Your task to perform on an android device: What's the weather going to be tomorrow? Image 0: 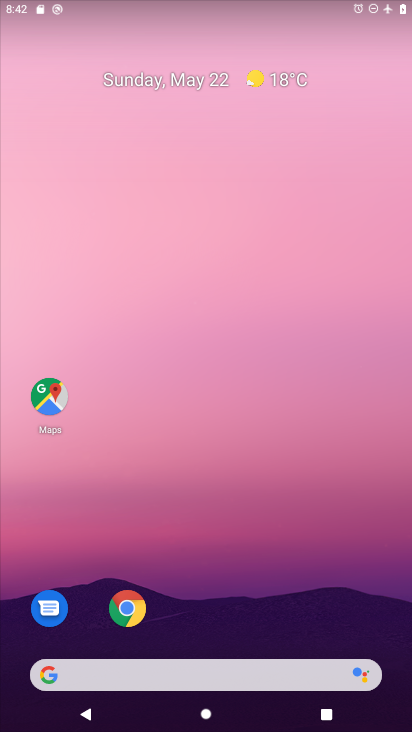
Step 0: click (254, 76)
Your task to perform on an android device: What's the weather going to be tomorrow? Image 1: 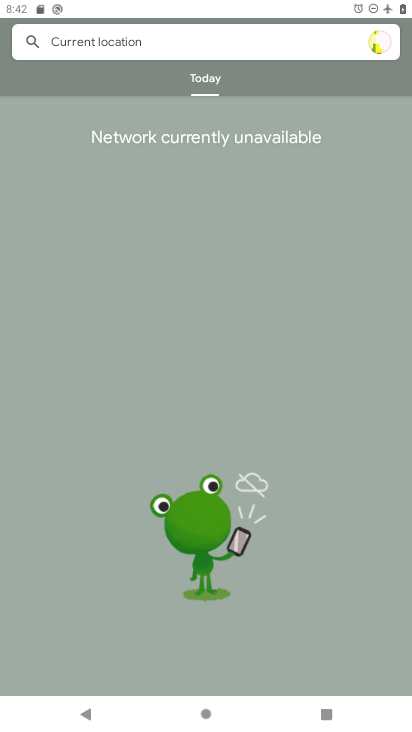
Step 1: task complete